Your task to perform on an android device: open device folders in google photos Image 0: 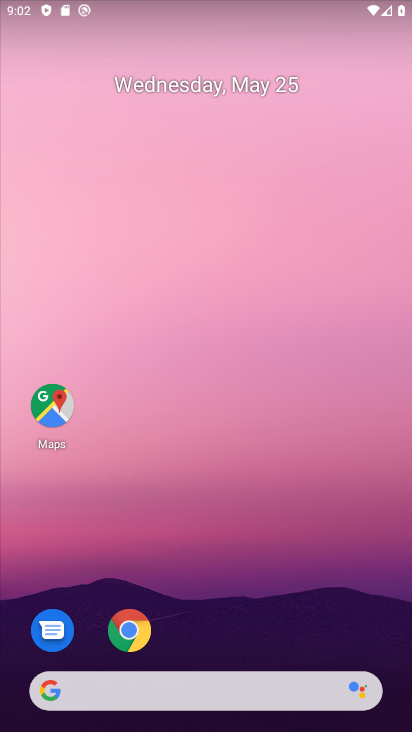
Step 0: drag from (216, 634) to (220, 66)
Your task to perform on an android device: open device folders in google photos Image 1: 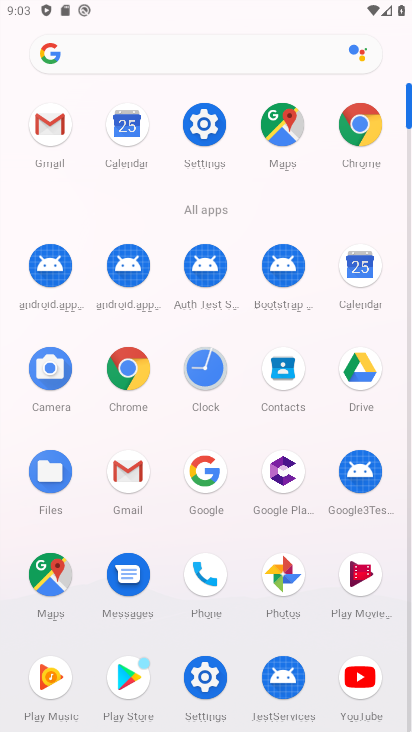
Step 1: click (288, 574)
Your task to perform on an android device: open device folders in google photos Image 2: 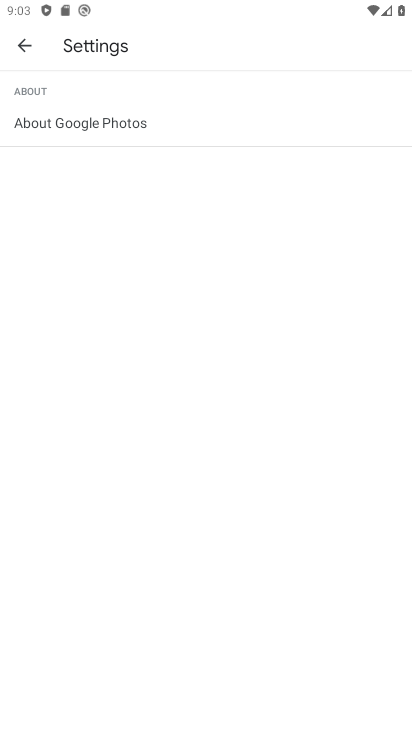
Step 2: click (20, 27)
Your task to perform on an android device: open device folders in google photos Image 3: 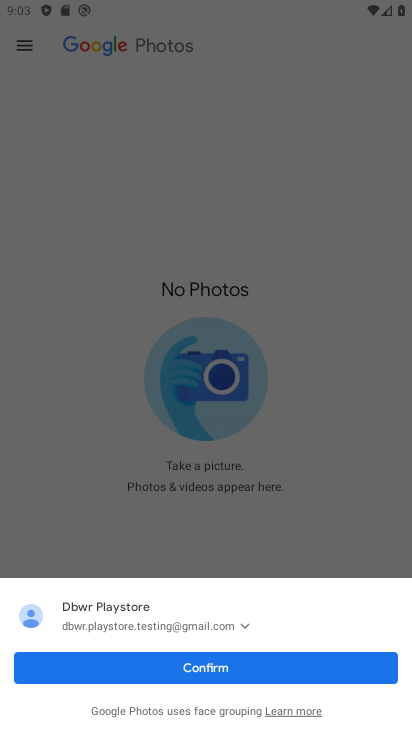
Step 3: click (28, 45)
Your task to perform on an android device: open device folders in google photos Image 4: 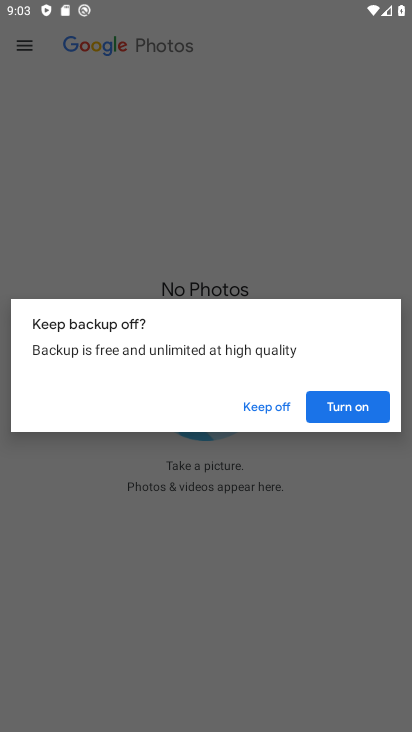
Step 4: click (336, 409)
Your task to perform on an android device: open device folders in google photos Image 5: 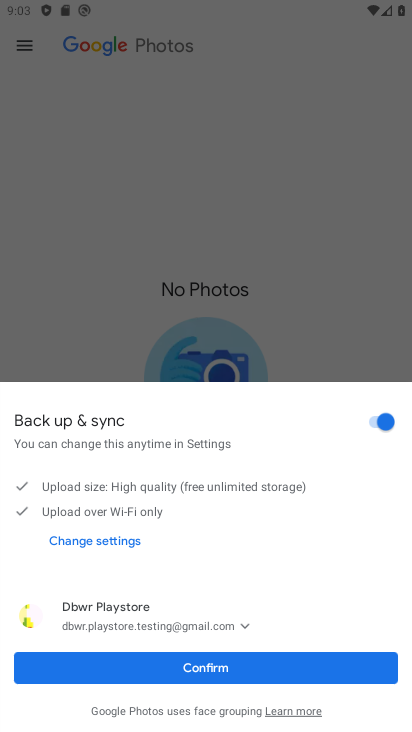
Step 5: click (252, 666)
Your task to perform on an android device: open device folders in google photos Image 6: 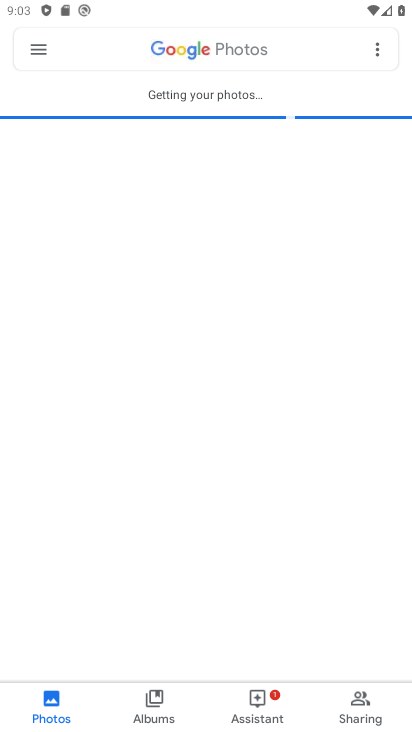
Step 6: click (35, 51)
Your task to perform on an android device: open device folders in google photos Image 7: 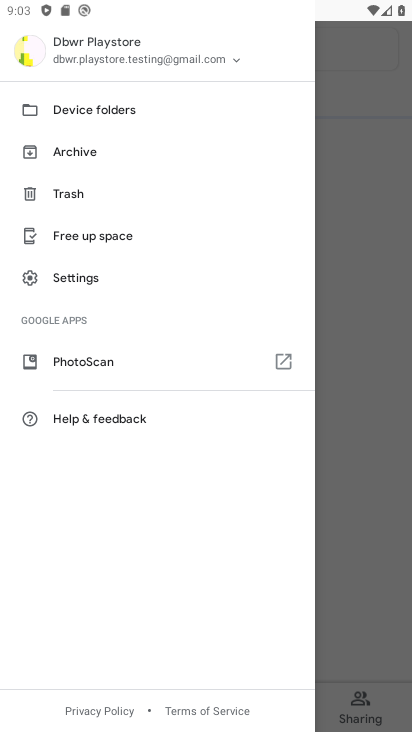
Step 7: click (92, 106)
Your task to perform on an android device: open device folders in google photos Image 8: 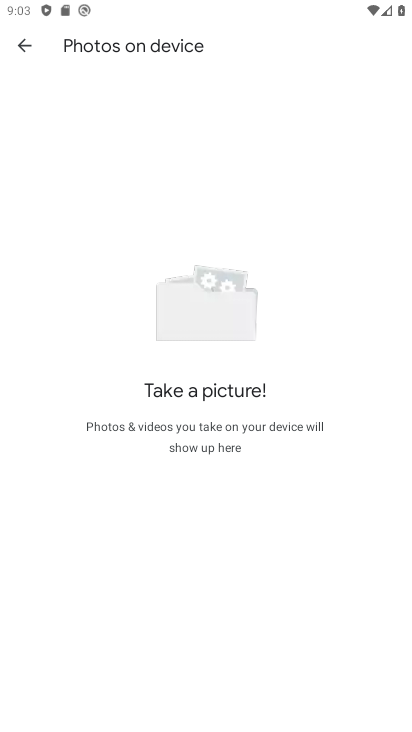
Step 8: task complete